Your task to perform on an android device: Search for "logitech g pro" on costco, select the first entry, add it to the cart, then select checkout. Image 0: 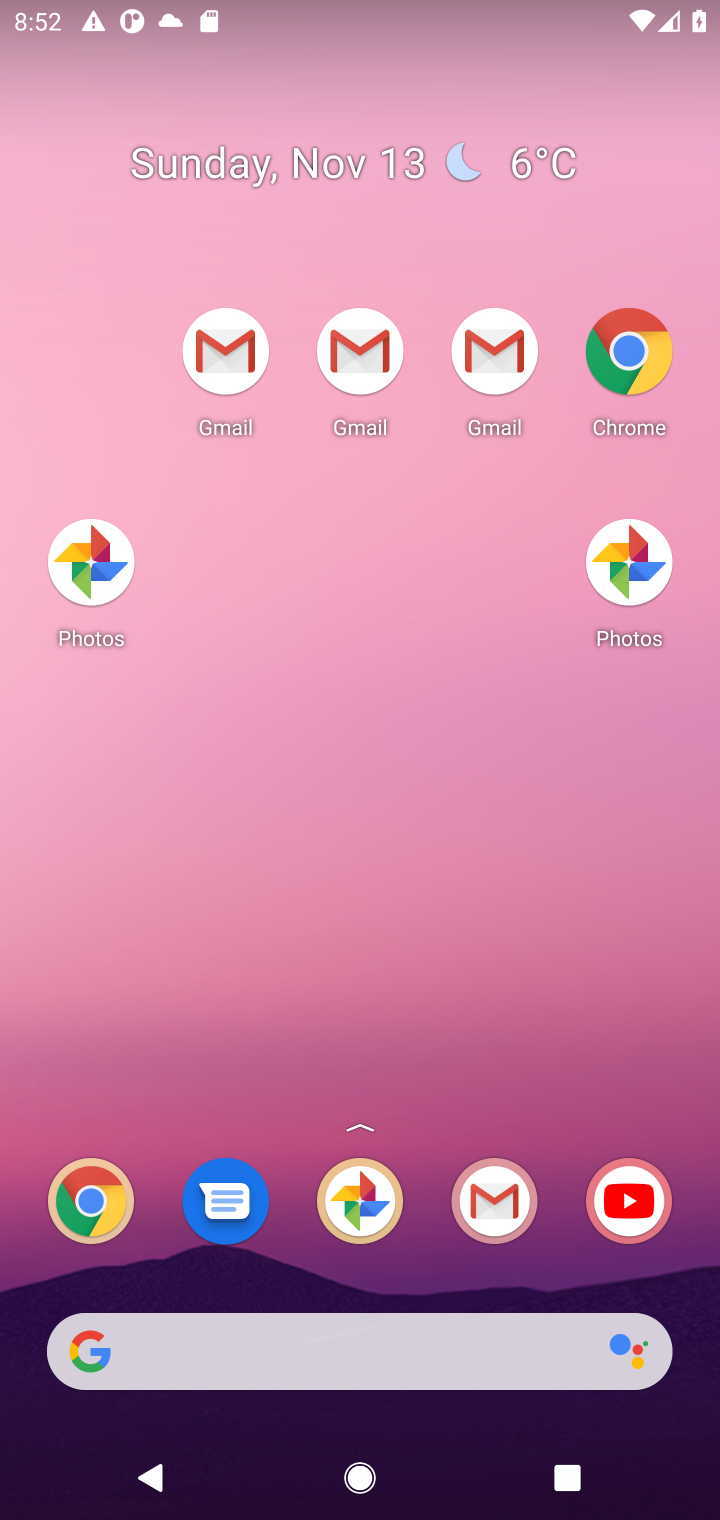
Step 0: drag from (426, 1242) to (455, 110)
Your task to perform on an android device: Search for "logitech g pro" on costco, select the first entry, add it to the cart, then select checkout. Image 1: 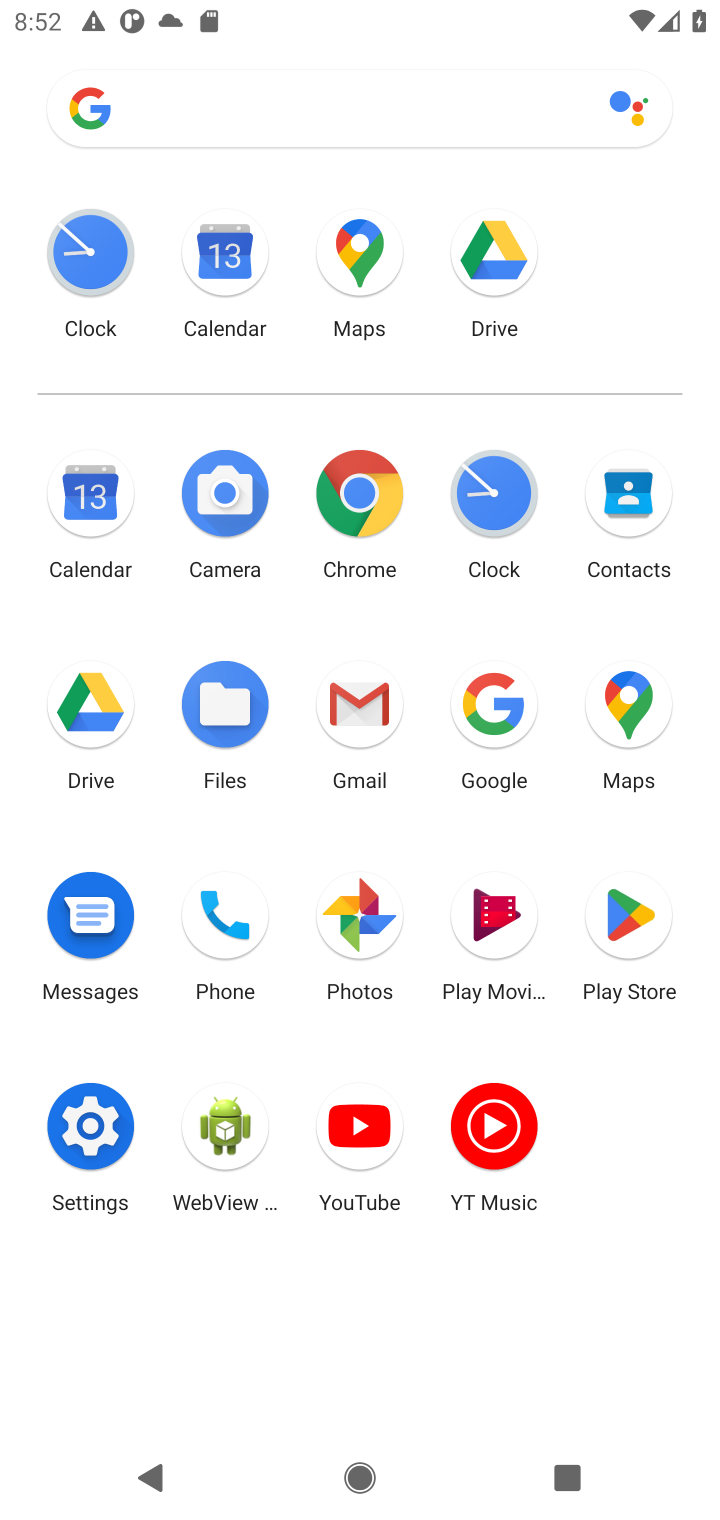
Step 1: click (358, 496)
Your task to perform on an android device: Search for "logitech g pro" on costco, select the first entry, add it to the cart, then select checkout. Image 2: 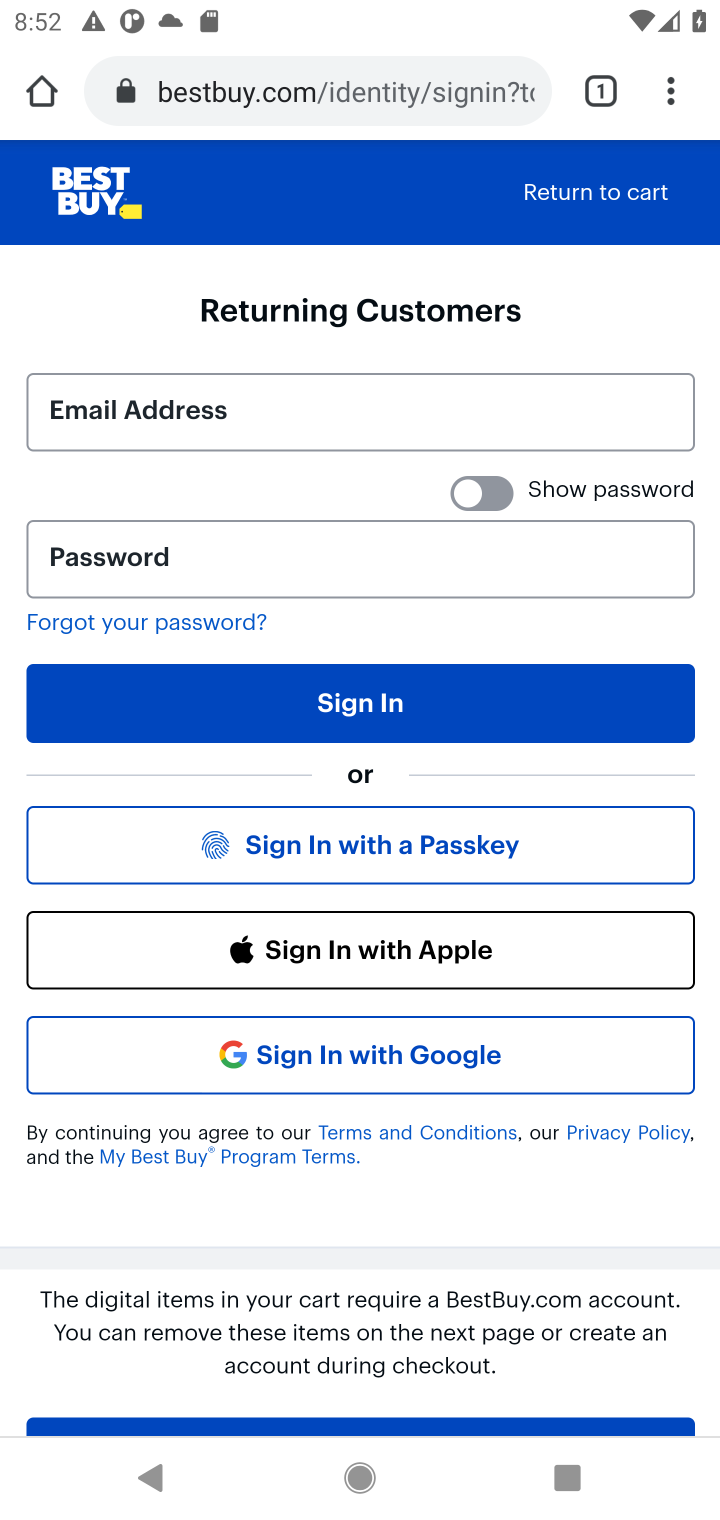
Step 2: click (342, 89)
Your task to perform on an android device: Search for "logitech g pro" on costco, select the first entry, add it to the cart, then select checkout. Image 3: 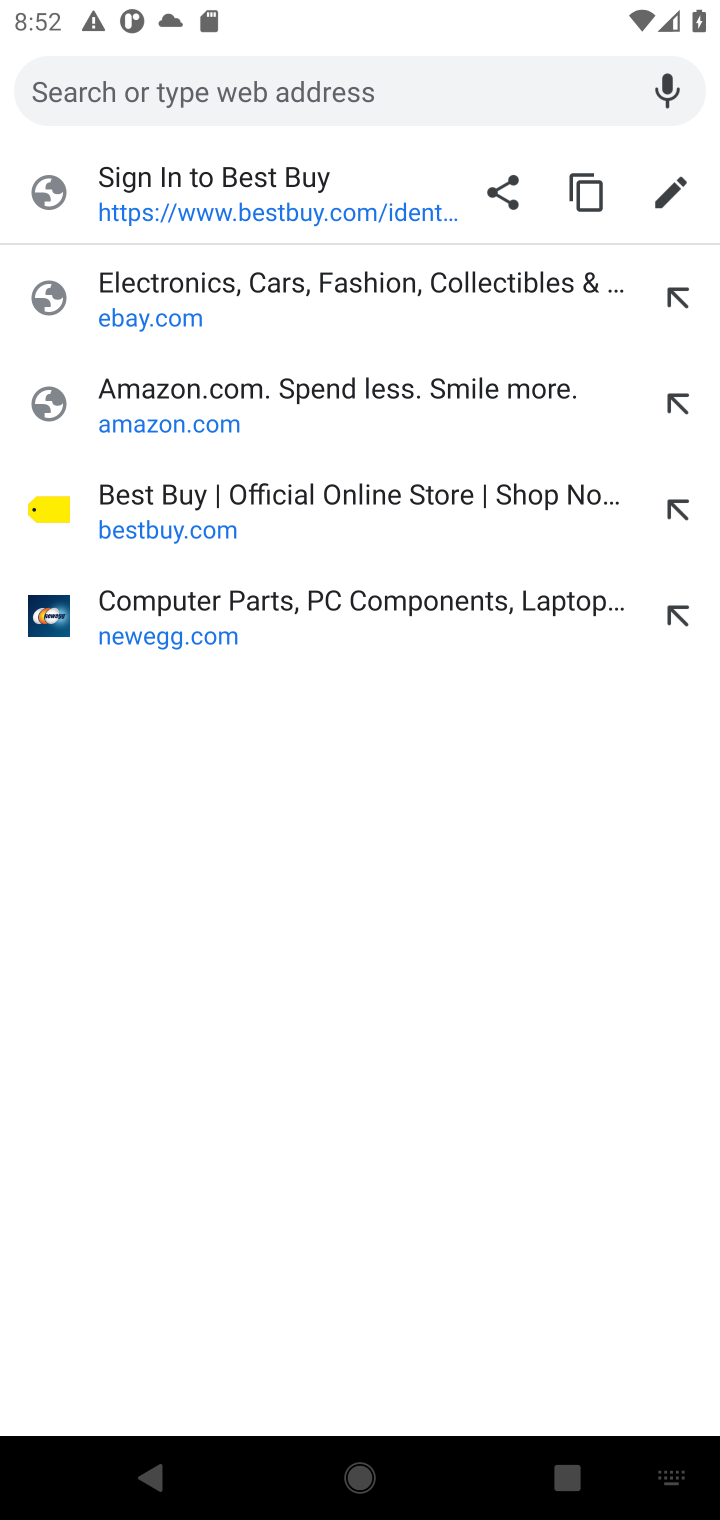
Step 3: type "costco.com"
Your task to perform on an android device: Search for "logitech g pro" on costco, select the first entry, add it to the cart, then select checkout. Image 4: 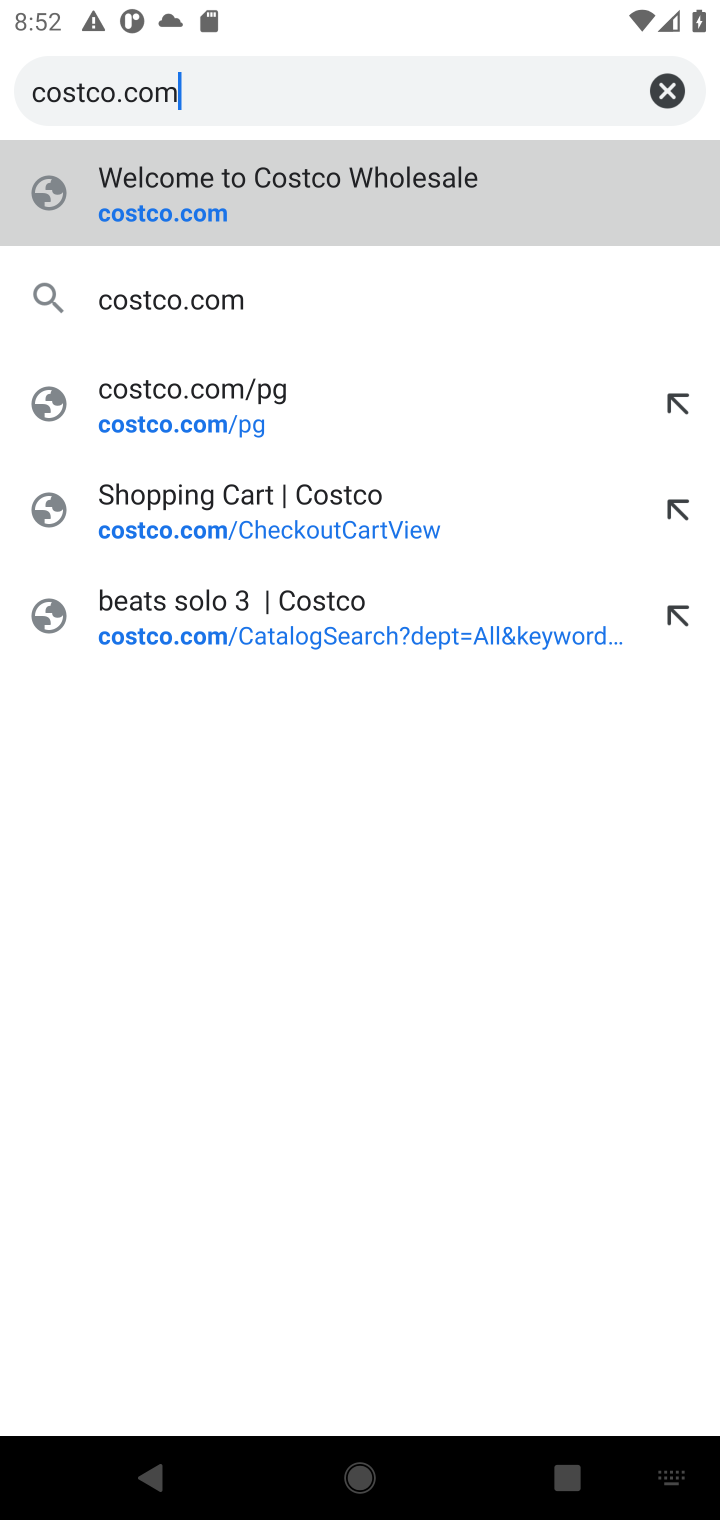
Step 4: press enter
Your task to perform on an android device: Search for "logitech g pro" on costco, select the first entry, add it to the cart, then select checkout. Image 5: 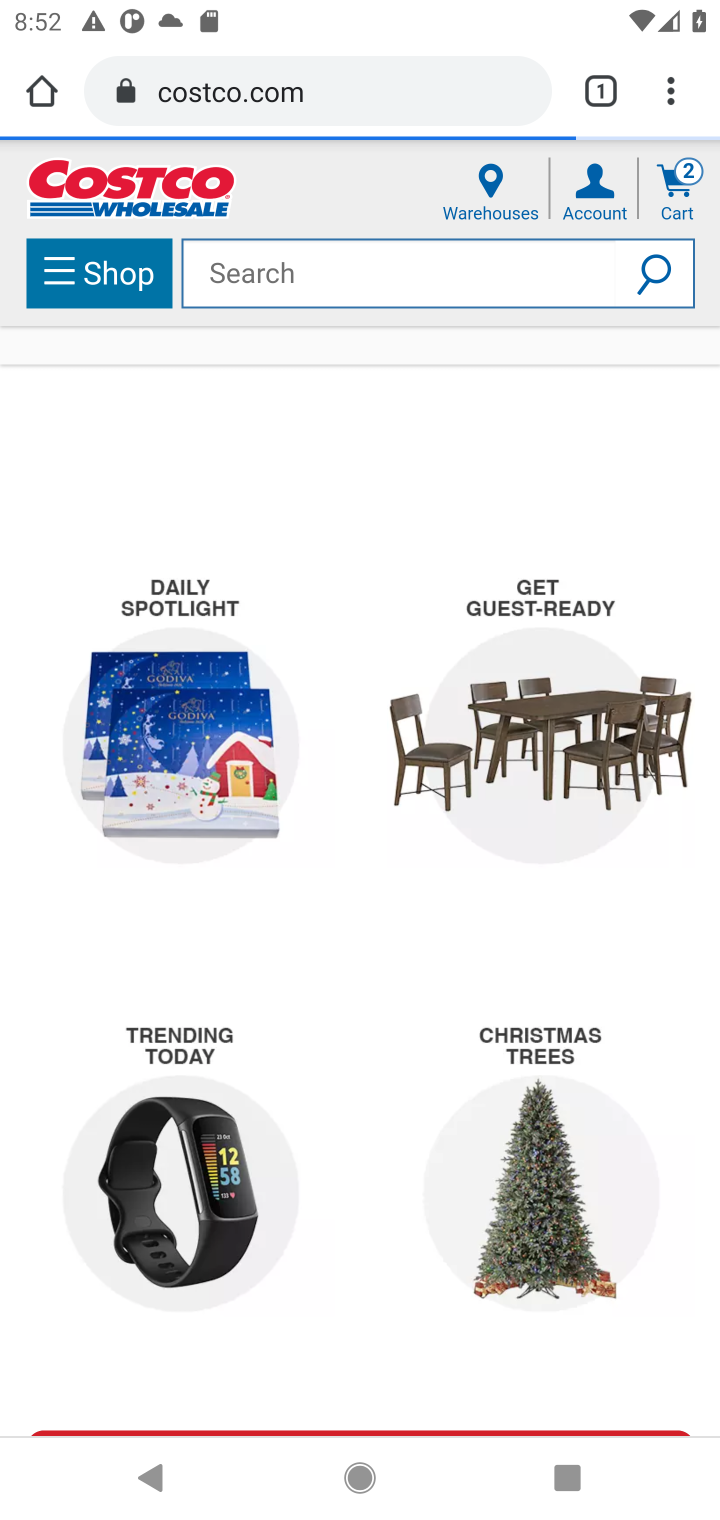
Step 5: click (441, 281)
Your task to perform on an android device: Search for "logitech g pro" on costco, select the first entry, add it to the cart, then select checkout. Image 6: 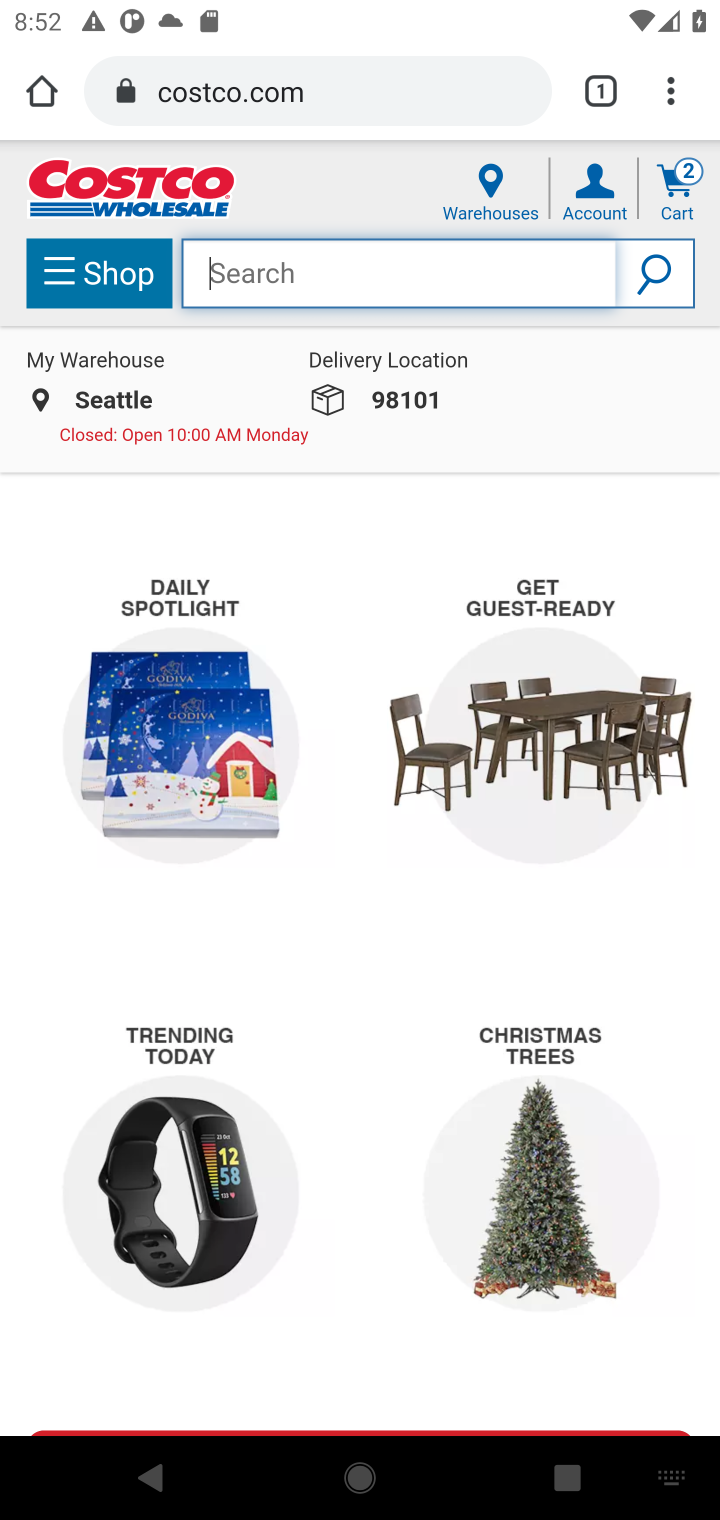
Step 6: type "logitech g pro"
Your task to perform on an android device: Search for "logitech g pro" on costco, select the first entry, add it to the cart, then select checkout. Image 7: 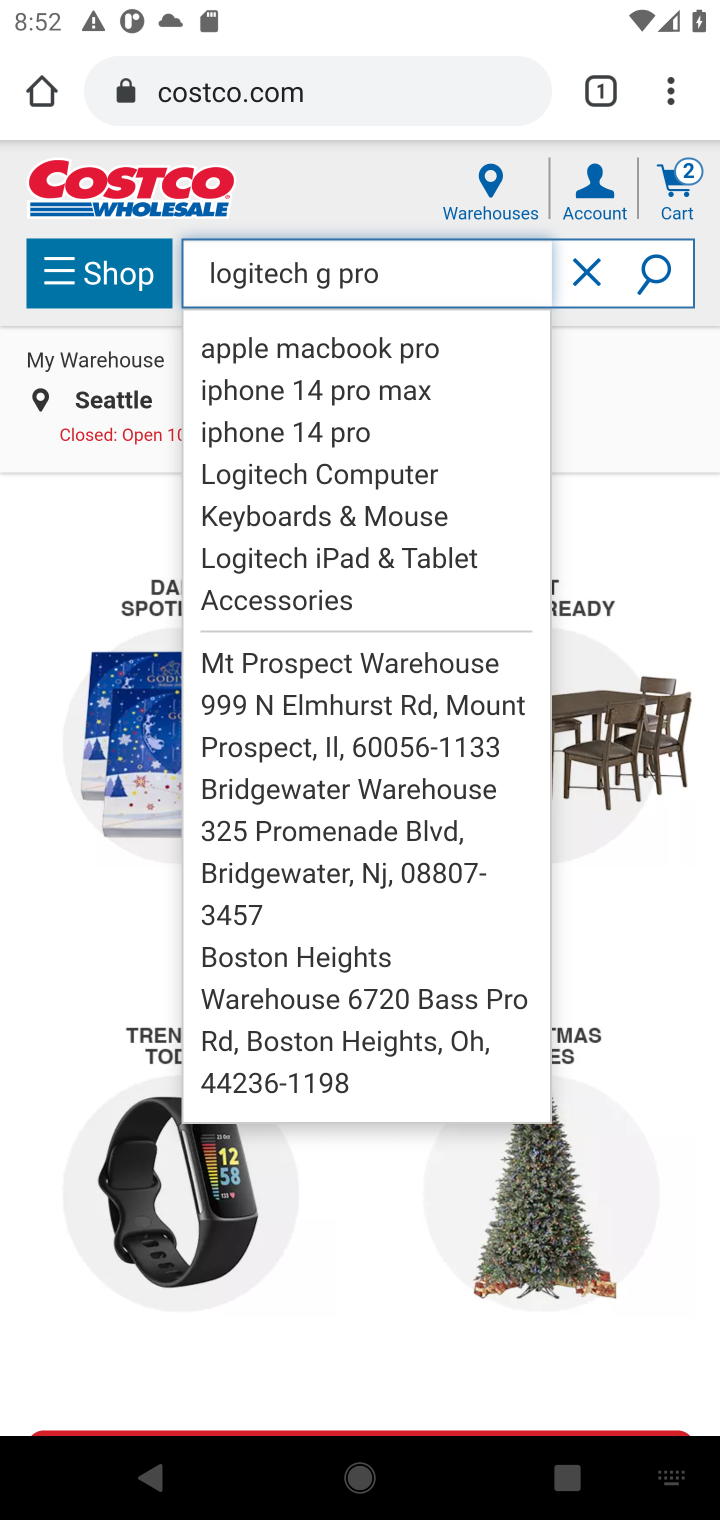
Step 7: press enter
Your task to perform on an android device: Search for "logitech g pro" on costco, select the first entry, add it to the cart, then select checkout. Image 8: 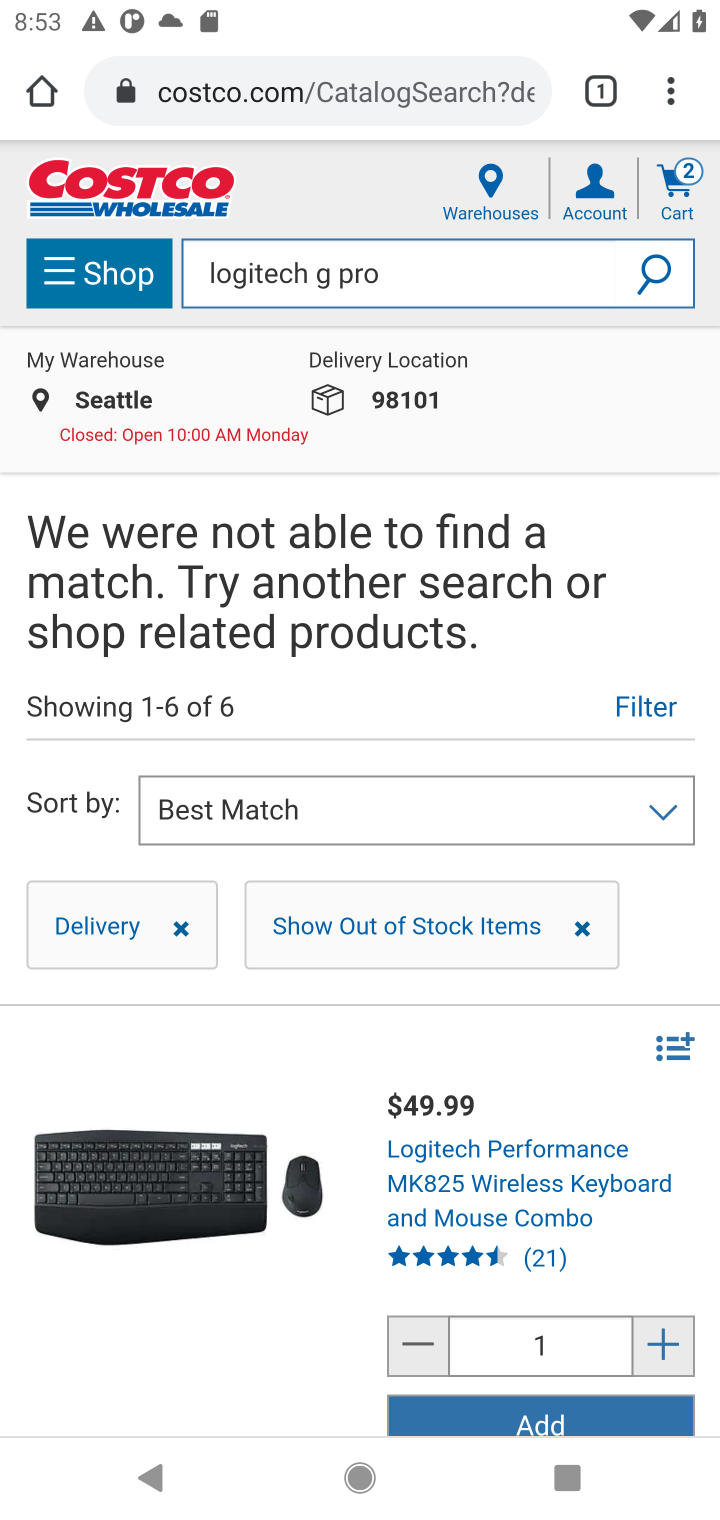
Step 8: task complete